Your task to perform on an android device: turn off picture-in-picture Image 0: 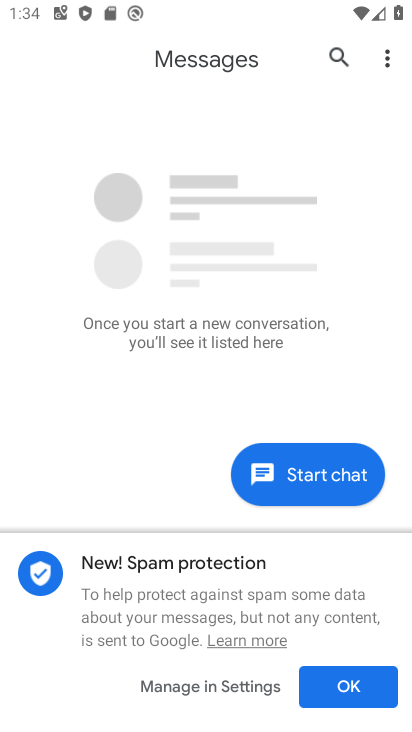
Step 0: press home button
Your task to perform on an android device: turn off picture-in-picture Image 1: 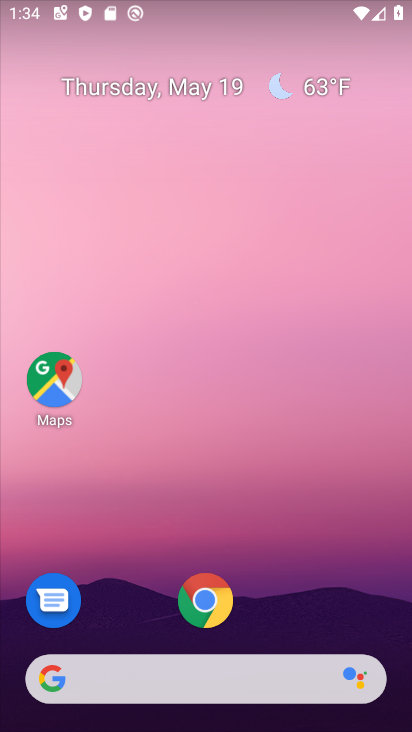
Step 1: click (199, 600)
Your task to perform on an android device: turn off picture-in-picture Image 2: 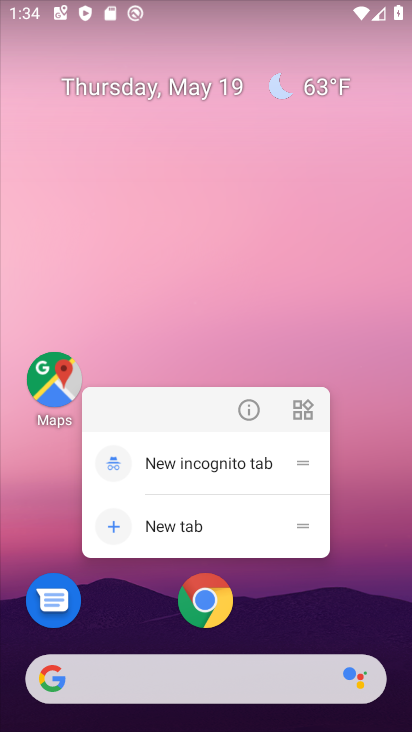
Step 2: click (253, 402)
Your task to perform on an android device: turn off picture-in-picture Image 3: 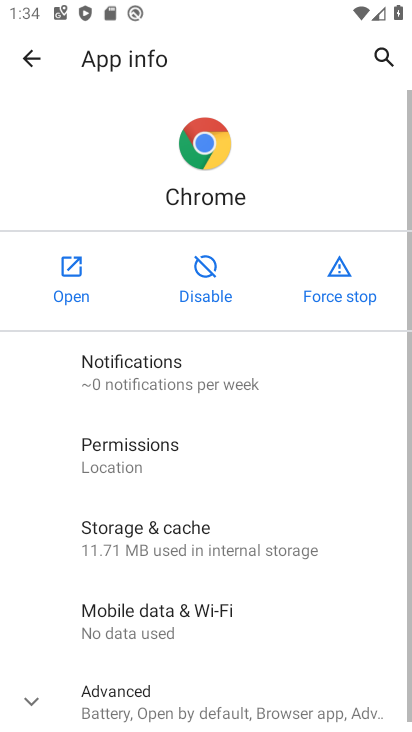
Step 3: drag from (255, 614) to (249, 0)
Your task to perform on an android device: turn off picture-in-picture Image 4: 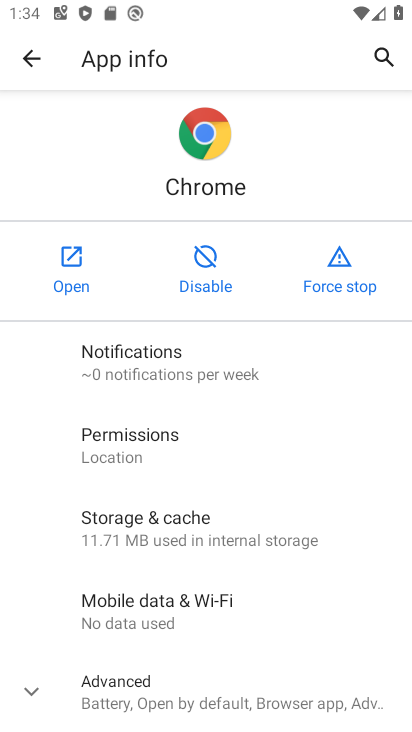
Step 4: click (137, 689)
Your task to perform on an android device: turn off picture-in-picture Image 5: 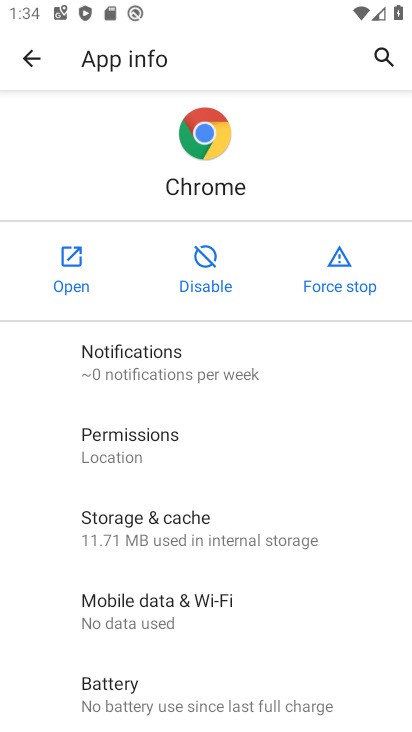
Step 5: drag from (155, 675) to (234, 98)
Your task to perform on an android device: turn off picture-in-picture Image 6: 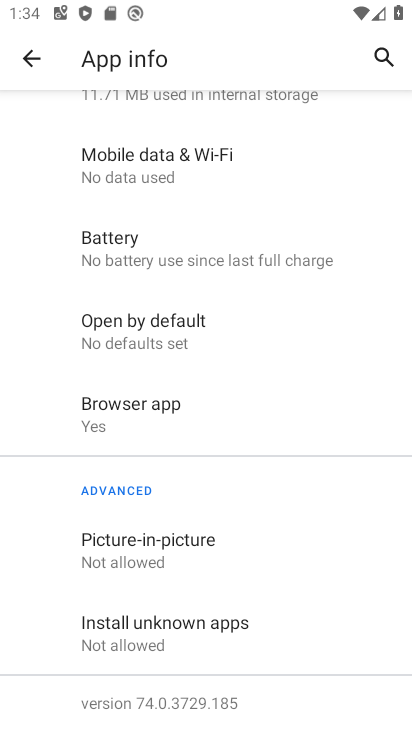
Step 6: click (152, 544)
Your task to perform on an android device: turn off picture-in-picture Image 7: 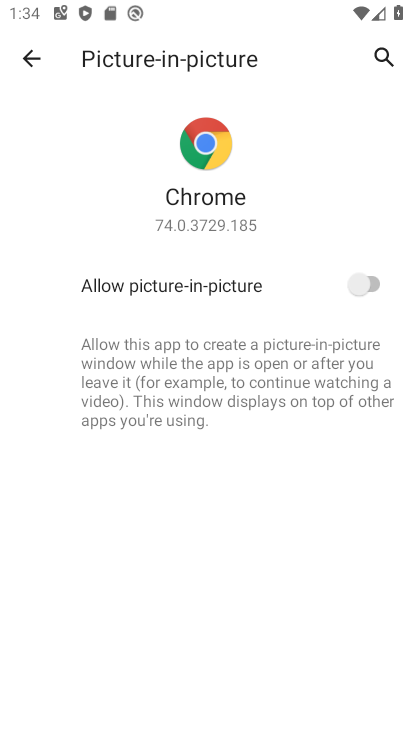
Step 7: task complete